Your task to perform on an android device: What's the weather going to be this weekend? Image 0: 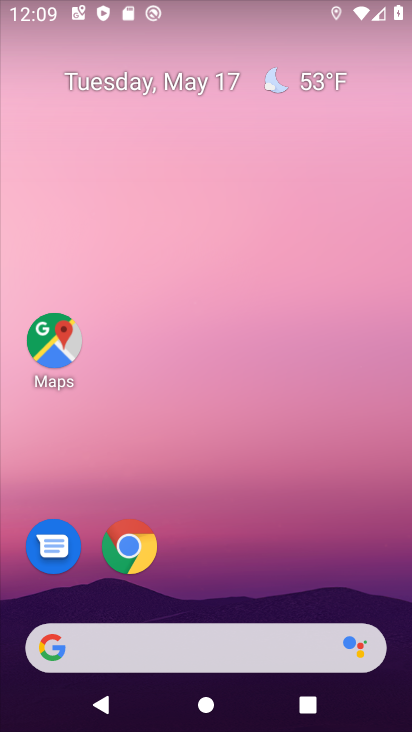
Step 0: drag from (246, 555) to (273, 121)
Your task to perform on an android device: What's the weather going to be this weekend? Image 1: 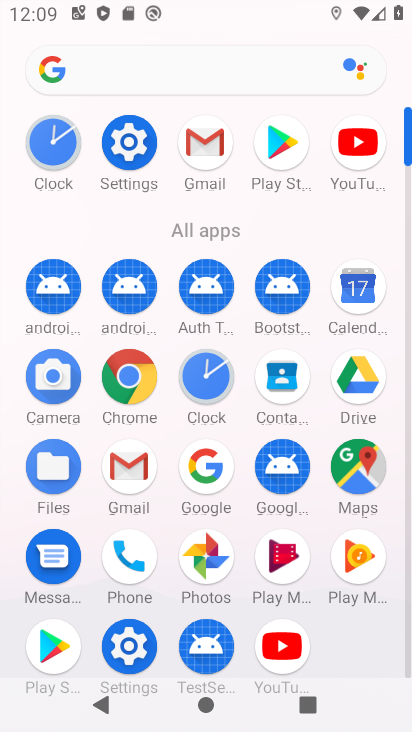
Step 1: click (202, 468)
Your task to perform on an android device: What's the weather going to be this weekend? Image 2: 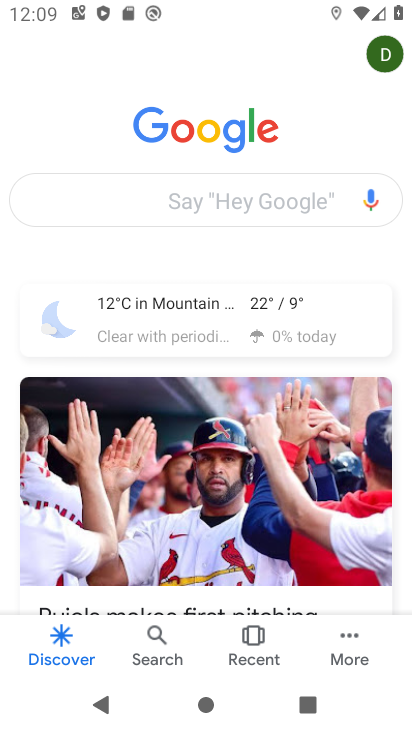
Step 2: click (181, 197)
Your task to perform on an android device: What's the weather going to be this weekend? Image 3: 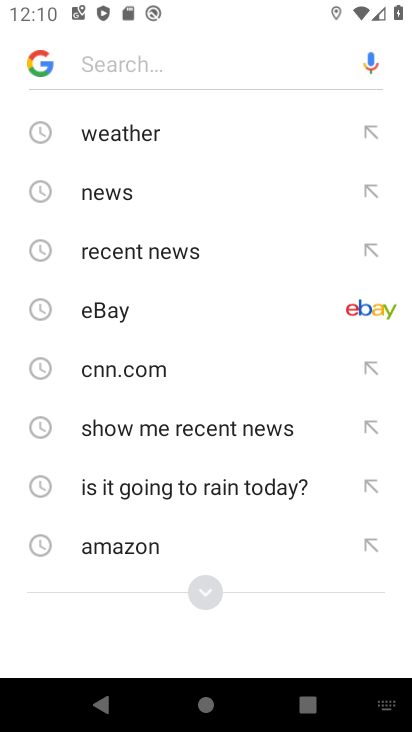
Step 3: type "weather going to be this weekend"
Your task to perform on an android device: What's the weather going to be this weekend? Image 4: 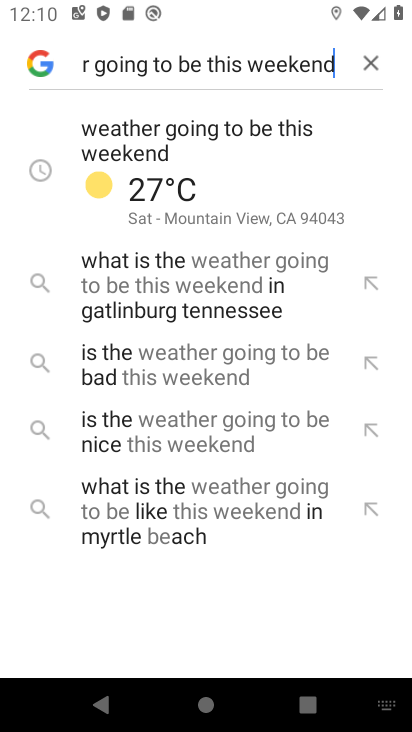
Step 4: click (188, 148)
Your task to perform on an android device: What's the weather going to be this weekend? Image 5: 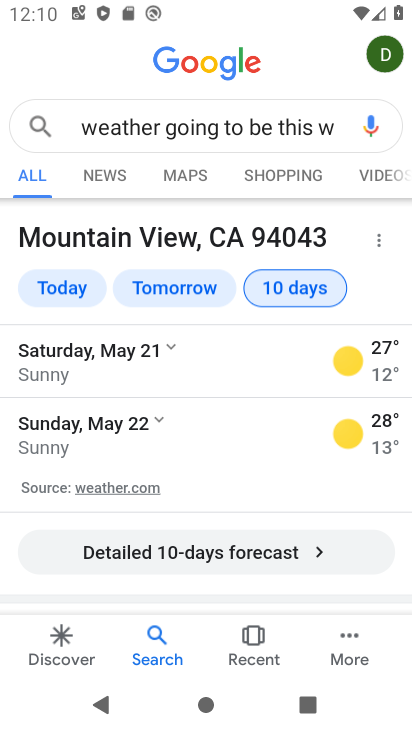
Step 5: task complete